Your task to perform on an android device: make emails show in primary in the gmail app Image 0: 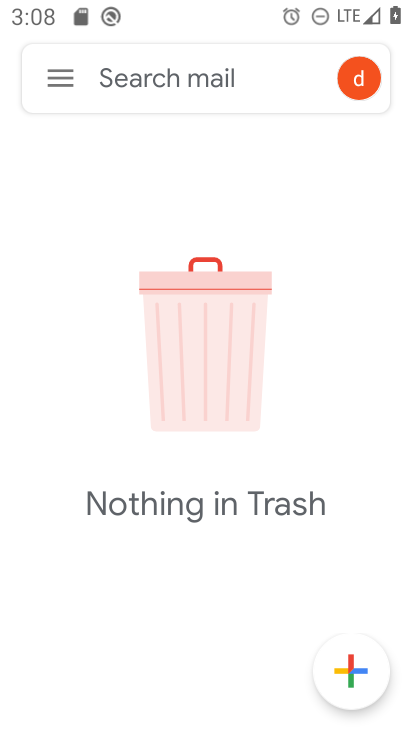
Step 0: press home button
Your task to perform on an android device: make emails show in primary in the gmail app Image 1: 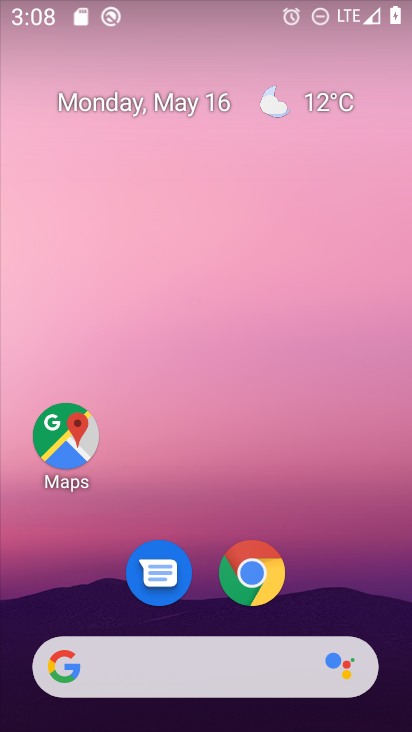
Step 1: drag from (172, 642) to (229, 43)
Your task to perform on an android device: make emails show in primary in the gmail app Image 2: 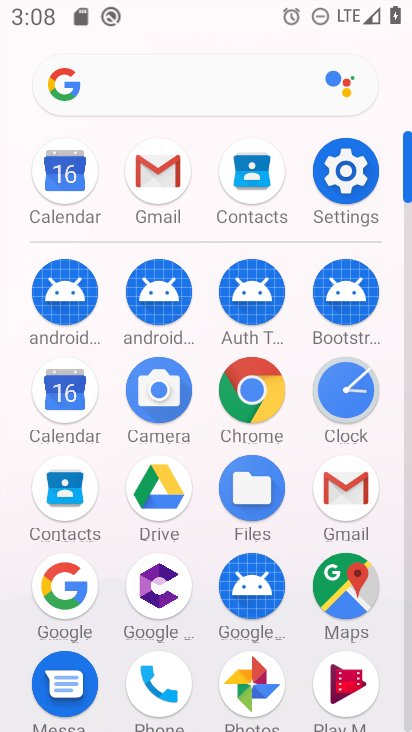
Step 2: click (367, 502)
Your task to perform on an android device: make emails show in primary in the gmail app Image 3: 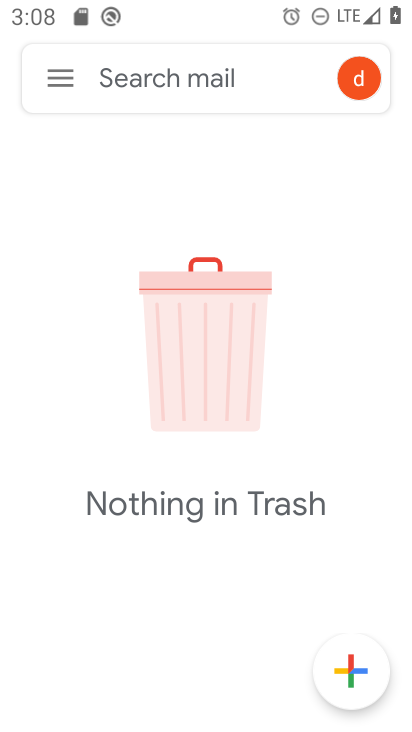
Step 3: click (61, 80)
Your task to perform on an android device: make emails show in primary in the gmail app Image 4: 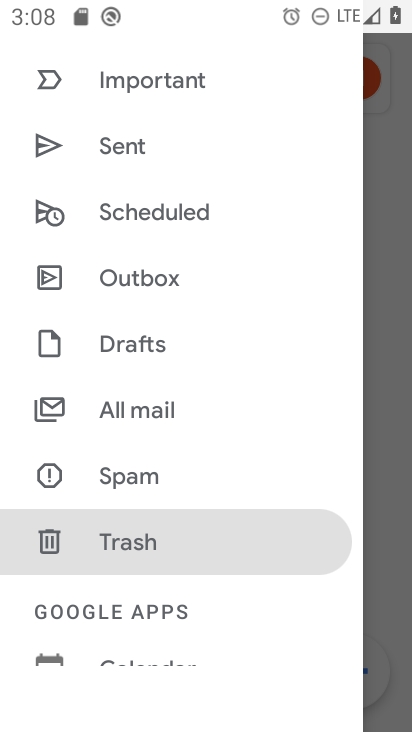
Step 4: drag from (173, 543) to (171, 22)
Your task to perform on an android device: make emails show in primary in the gmail app Image 5: 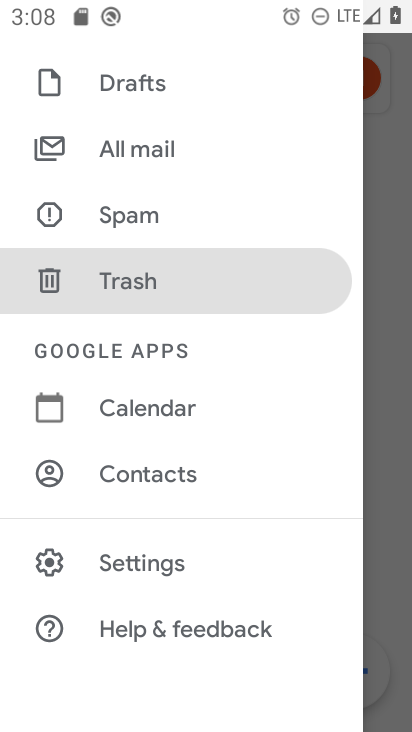
Step 5: click (121, 552)
Your task to perform on an android device: make emails show in primary in the gmail app Image 6: 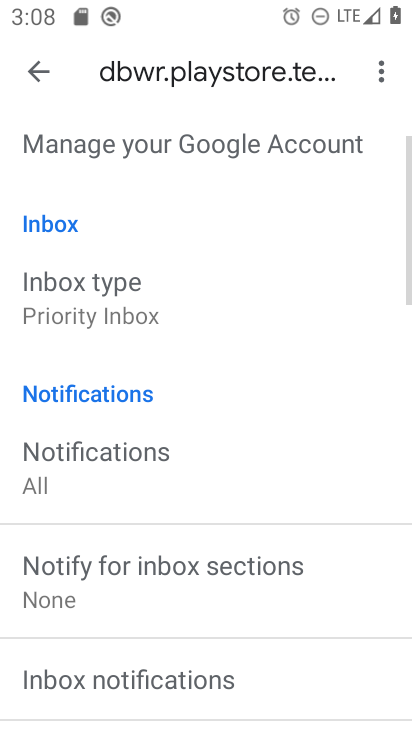
Step 6: click (117, 294)
Your task to perform on an android device: make emails show in primary in the gmail app Image 7: 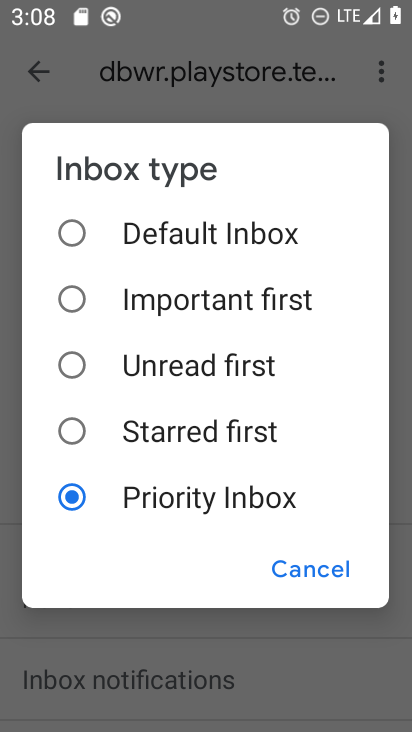
Step 7: click (120, 239)
Your task to perform on an android device: make emails show in primary in the gmail app Image 8: 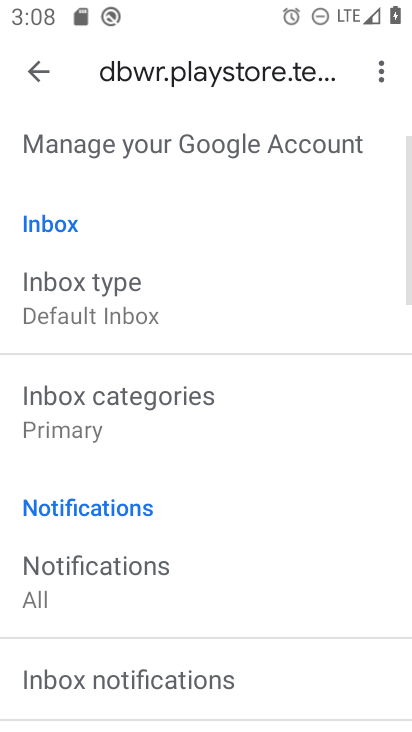
Step 8: click (79, 414)
Your task to perform on an android device: make emails show in primary in the gmail app Image 9: 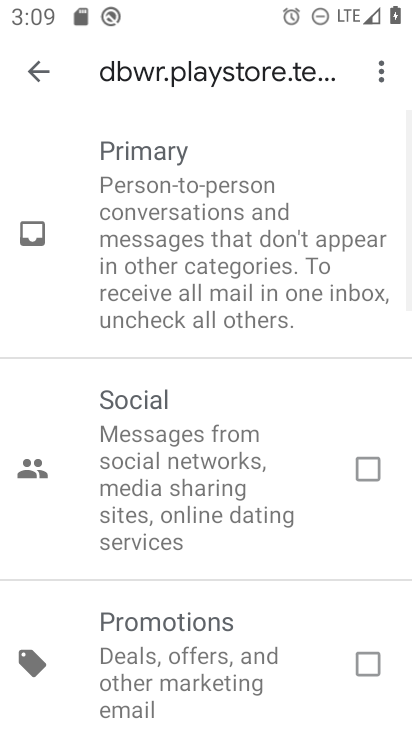
Step 9: task complete